Your task to perform on an android device: open app "Booking.com: Hotels and more" (install if not already installed) Image 0: 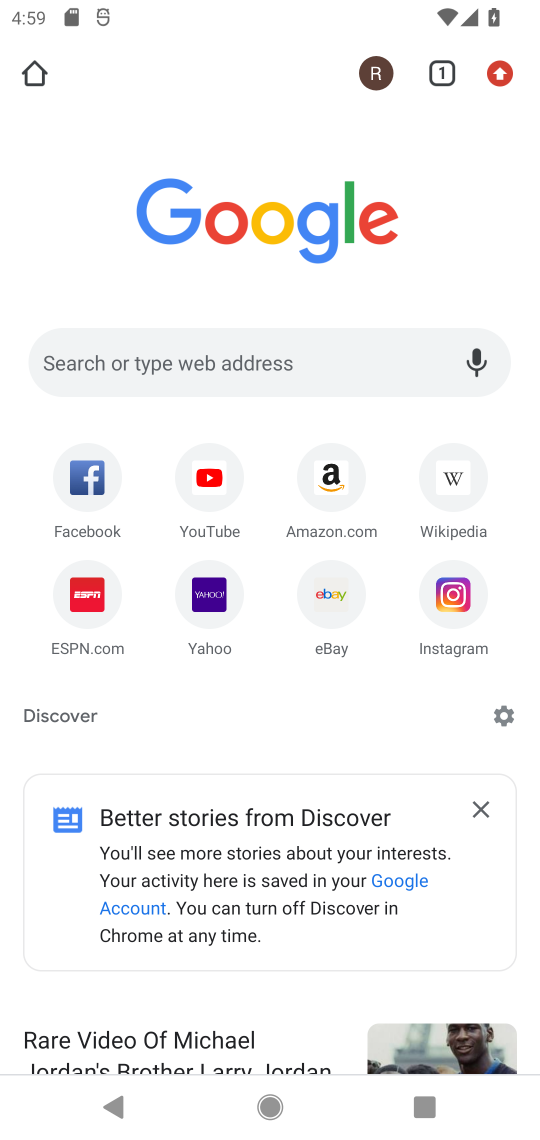
Step 0: press home button
Your task to perform on an android device: open app "Booking.com: Hotels and more" (install if not already installed) Image 1: 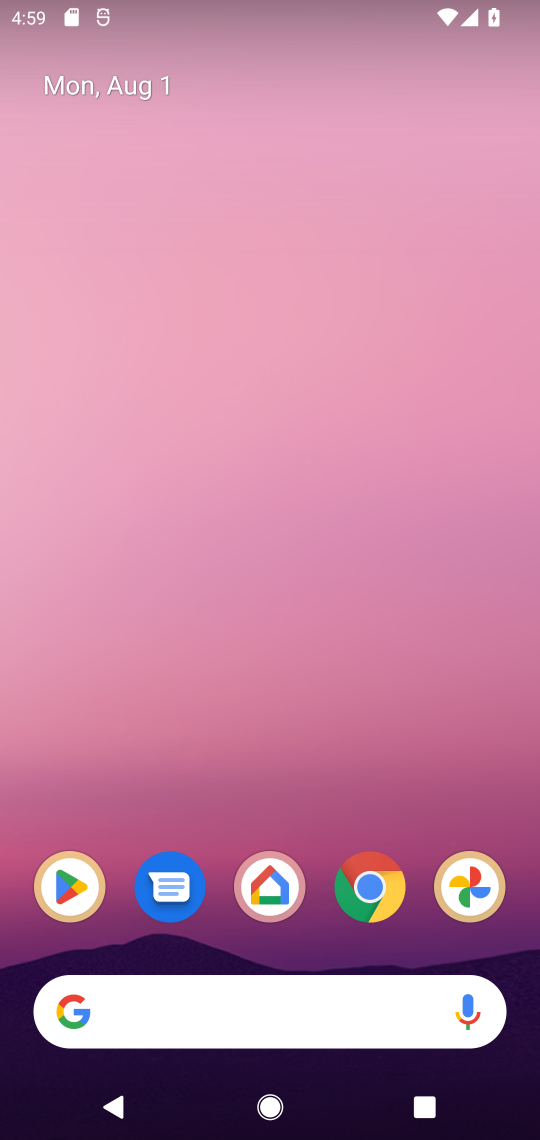
Step 1: click (87, 900)
Your task to perform on an android device: open app "Booking.com: Hotels and more" (install if not already installed) Image 2: 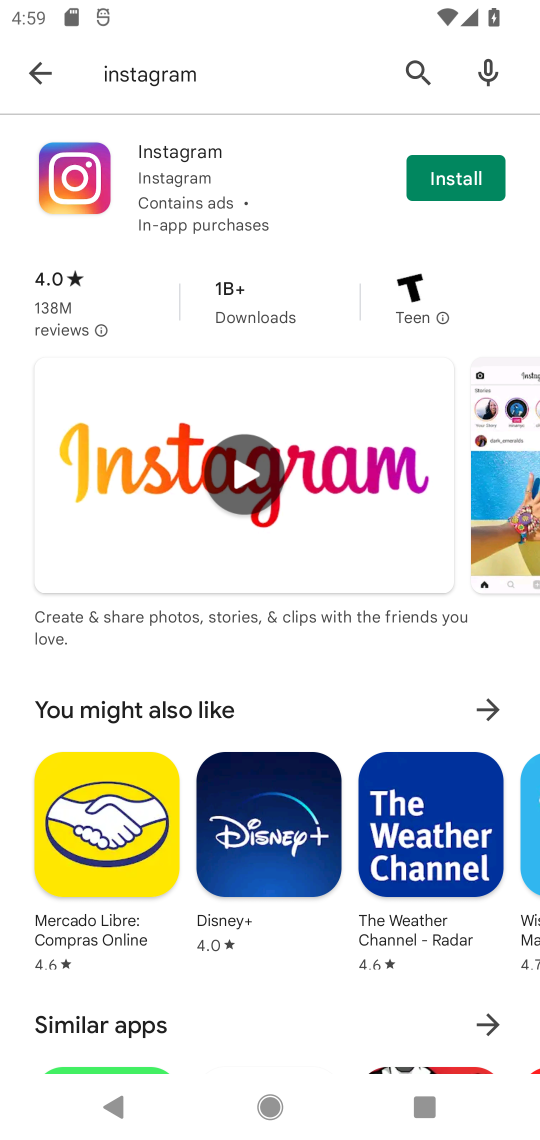
Step 2: click (23, 60)
Your task to perform on an android device: open app "Booking.com: Hotels and more" (install if not already installed) Image 3: 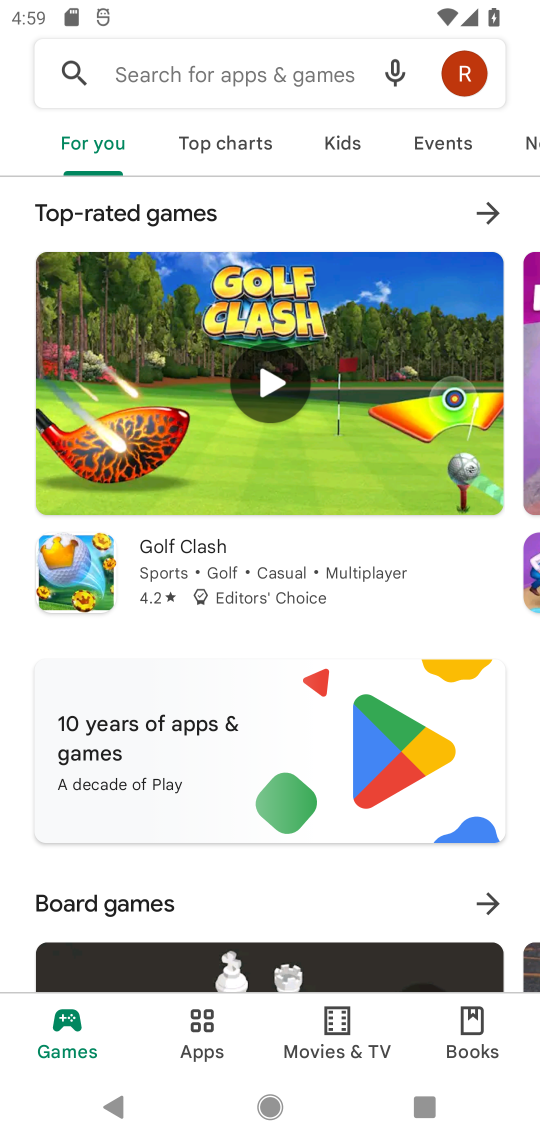
Step 3: click (134, 69)
Your task to perform on an android device: open app "Booking.com: Hotels and more" (install if not already installed) Image 4: 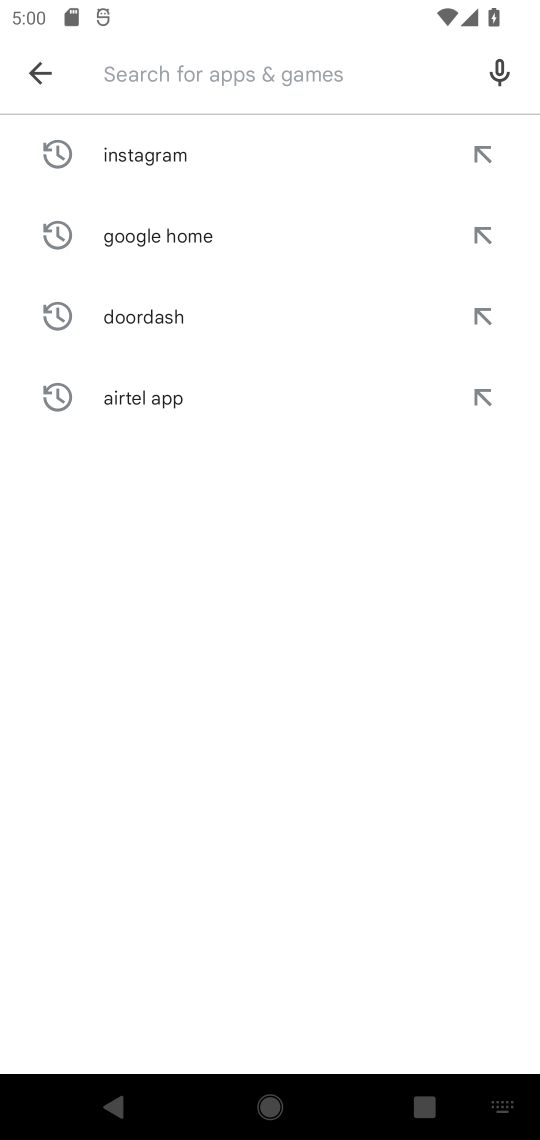
Step 4: type "Booking.com"
Your task to perform on an android device: open app "Booking.com: Hotels and more" (install if not already installed) Image 5: 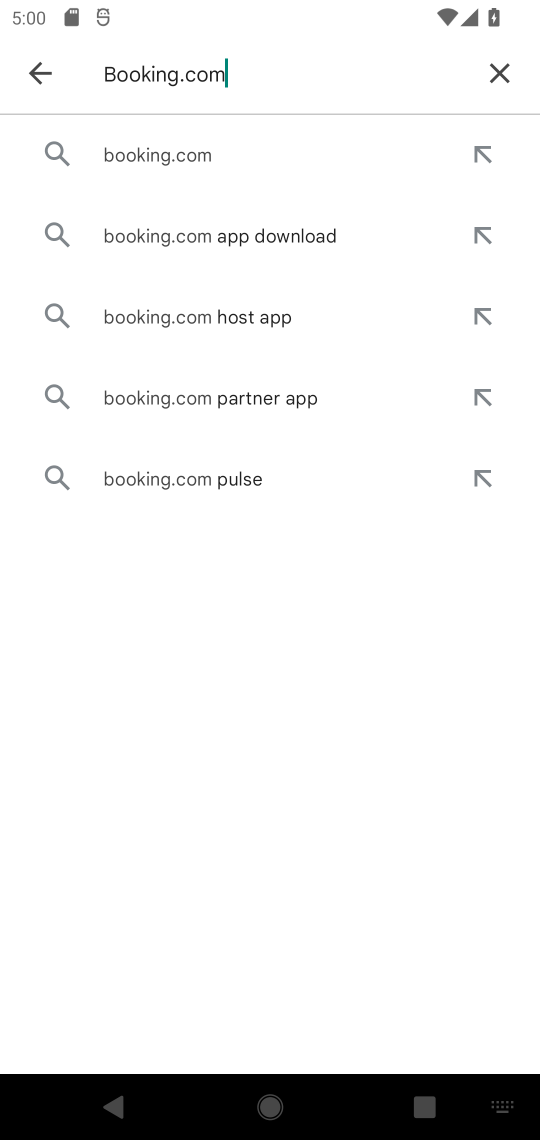
Step 5: click (179, 173)
Your task to perform on an android device: open app "Booking.com: Hotels and more" (install if not already installed) Image 6: 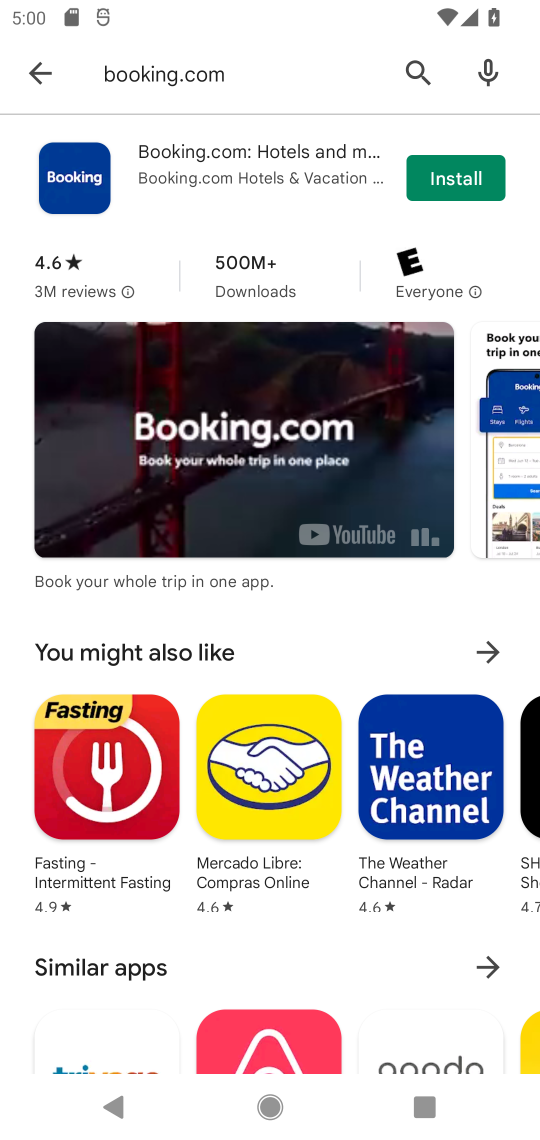
Step 6: click (448, 192)
Your task to perform on an android device: open app "Booking.com: Hotels and more" (install if not already installed) Image 7: 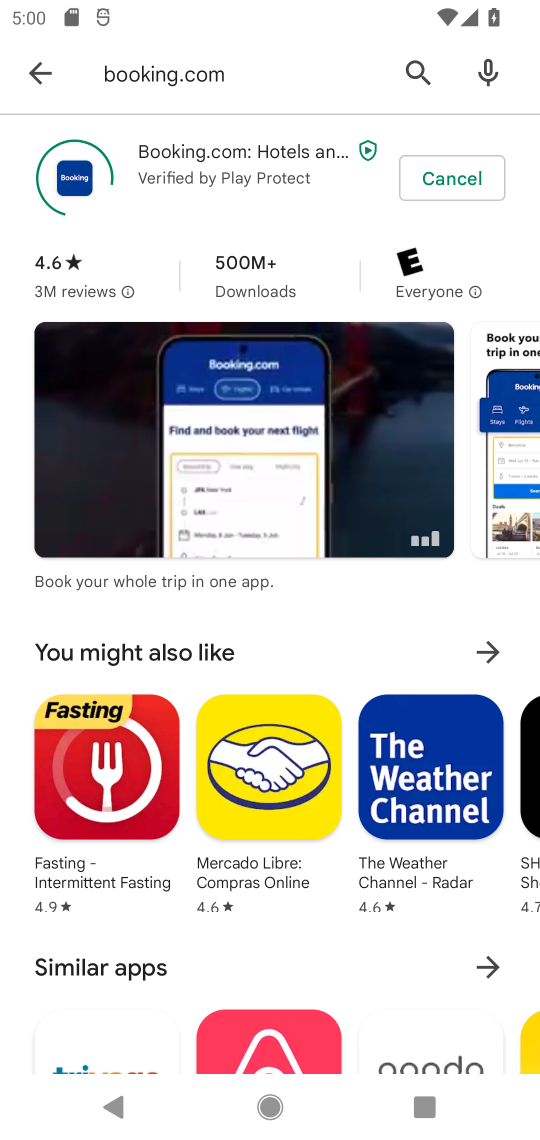
Step 7: task complete